Your task to perform on an android device: turn off translation in the chrome app Image 0: 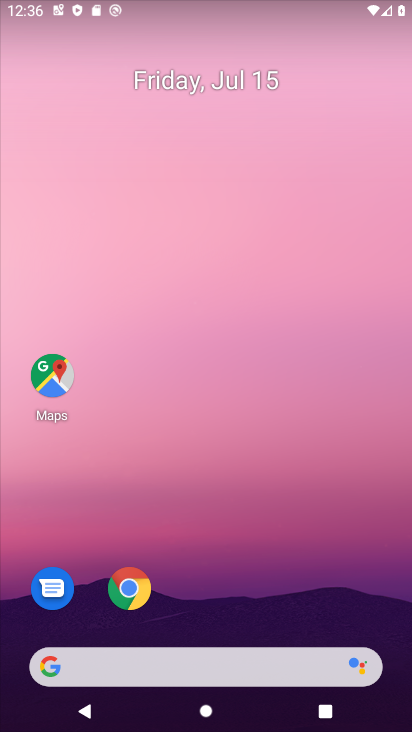
Step 0: click (133, 587)
Your task to perform on an android device: turn off translation in the chrome app Image 1: 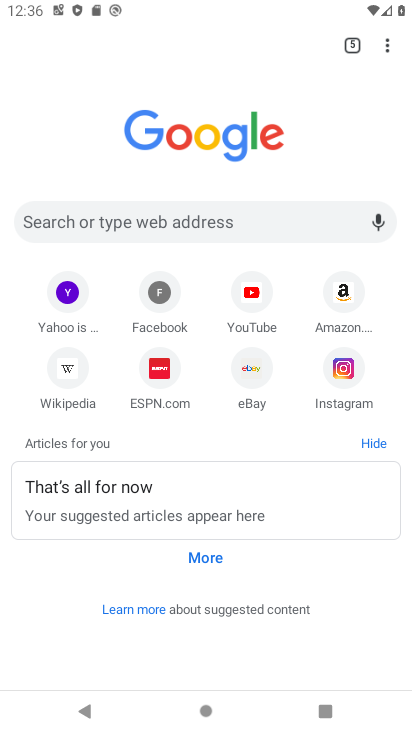
Step 1: click (386, 45)
Your task to perform on an android device: turn off translation in the chrome app Image 2: 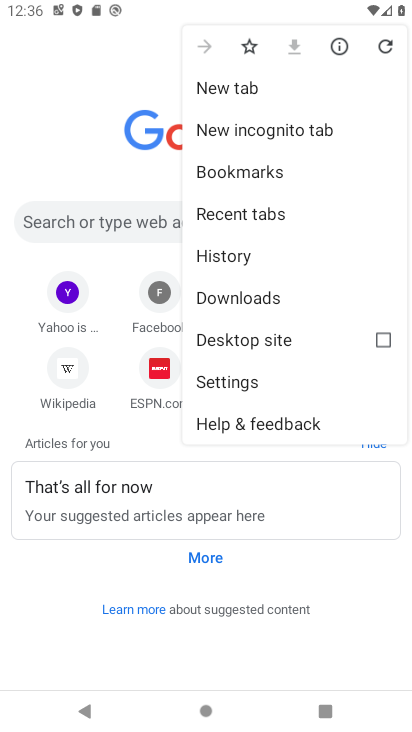
Step 2: click (239, 382)
Your task to perform on an android device: turn off translation in the chrome app Image 3: 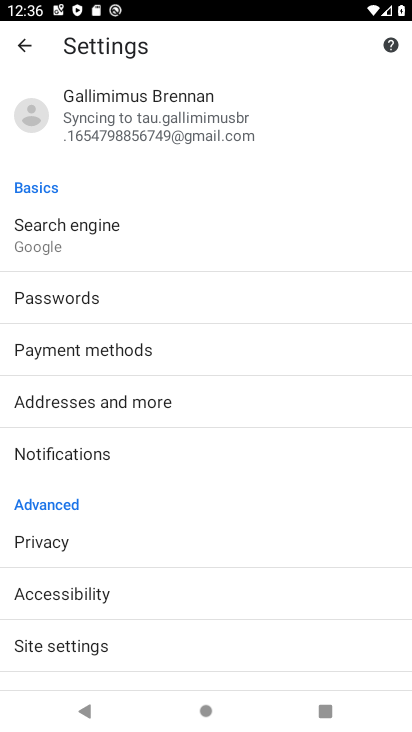
Step 3: drag from (170, 652) to (11, 245)
Your task to perform on an android device: turn off translation in the chrome app Image 4: 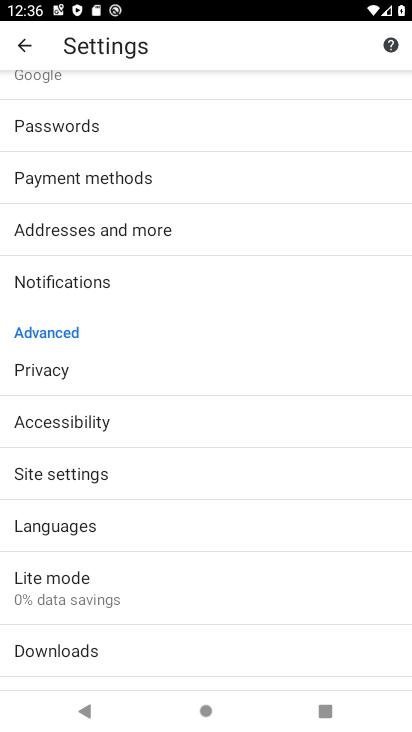
Step 4: click (94, 535)
Your task to perform on an android device: turn off translation in the chrome app Image 5: 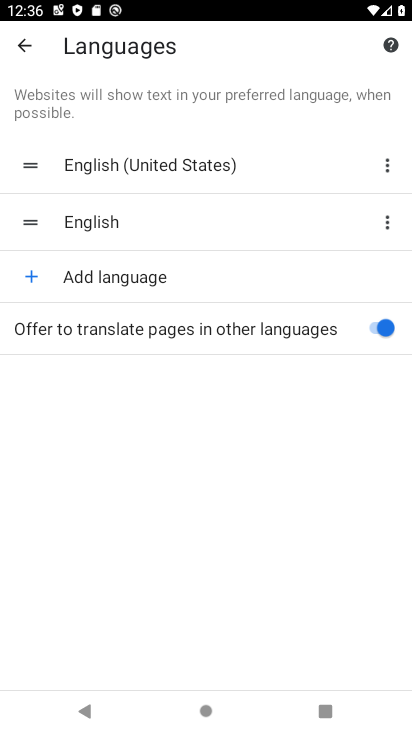
Step 5: click (385, 329)
Your task to perform on an android device: turn off translation in the chrome app Image 6: 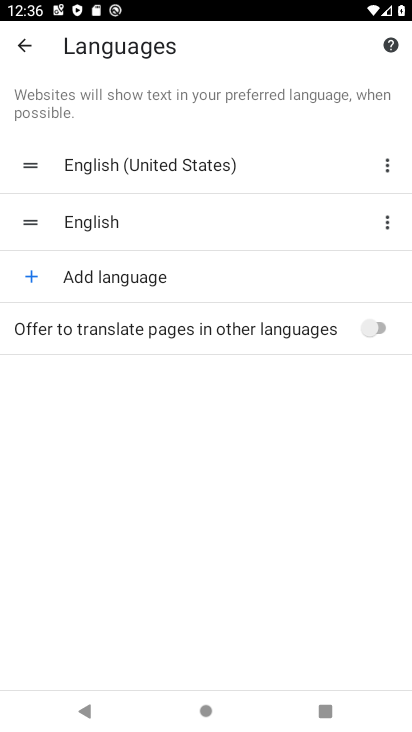
Step 6: task complete